Your task to perform on an android device: open app "VLC for Android" (install if not already installed) and enter user name: "Yves@outlook.com" and password: "internally" Image 0: 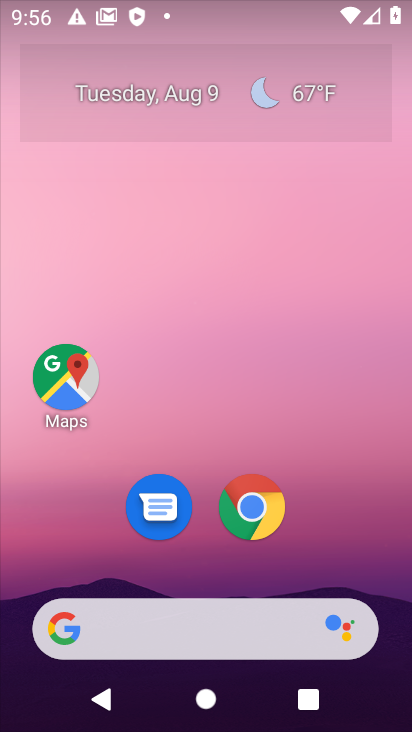
Step 0: drag from (89, 577) to (76, 134)
Your task to perform on an android device: open app "VLC for Android" (install if not already installed) and enter user name: "Yves@outlook.com" and password: "internally" Image 1: 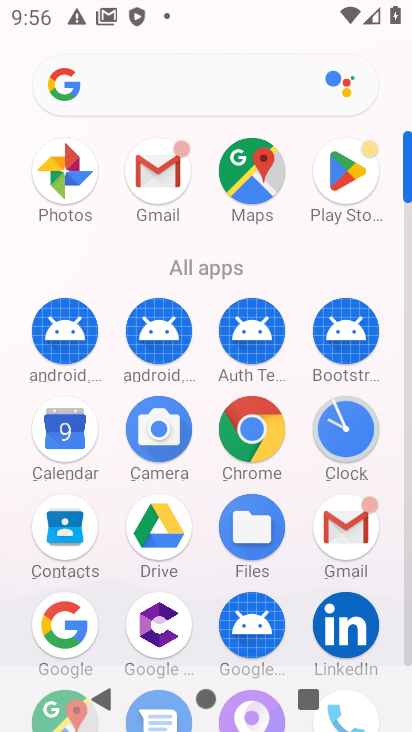
Step 1: click (350, 184)
Your task to perform on an android device: open app "VLC for Android" (install if not already installed) and enter user name: "Yves@outlook.com" and password: "internally" Image 2: 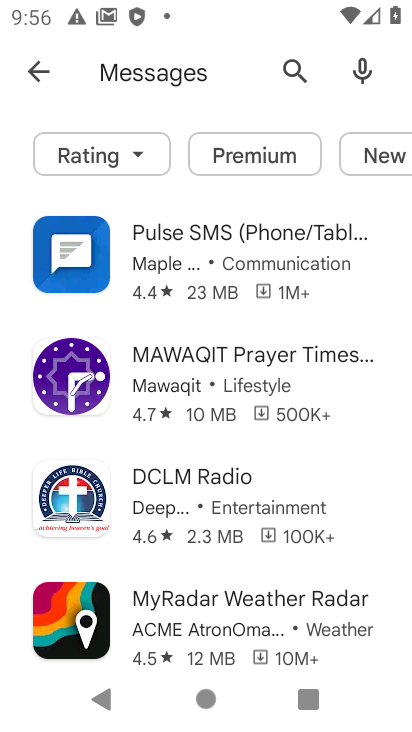
Step 2: click (24, 72)
Your task to perform on an android device: open app "VLC for Android" (install if not already installed) and enter user name: "Yves@outlook.com" and password: "internally" Image 3: 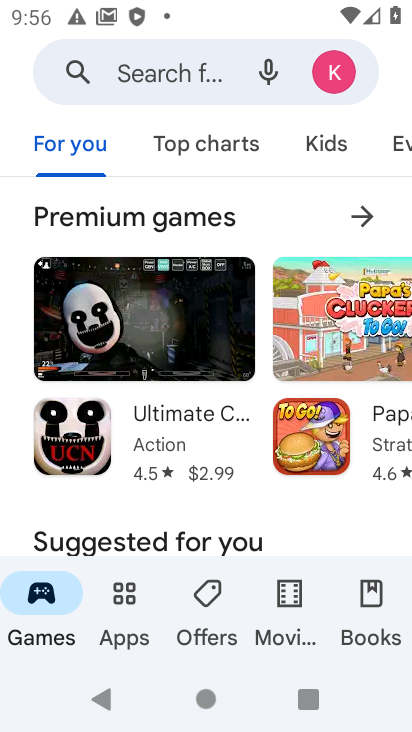
Step 3: click (31, 50)
Your task to perform on an android device: open app "VLC for Android" (install if not already installed) and enter user name: "Yves@outlook.com" and password: "internally" Image 4: 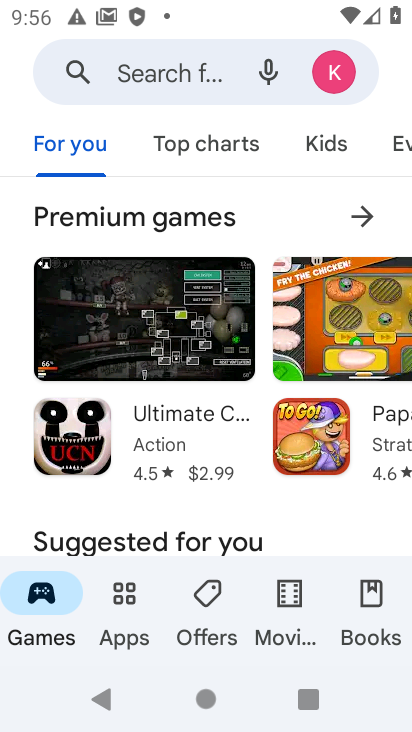
Step 4: click (128, 78)
Your task to perform on an android device: open app "VLC for Android" (install if not already installed) and enter user name: "Yves@outlook.com" and password: "internally" Image 5: 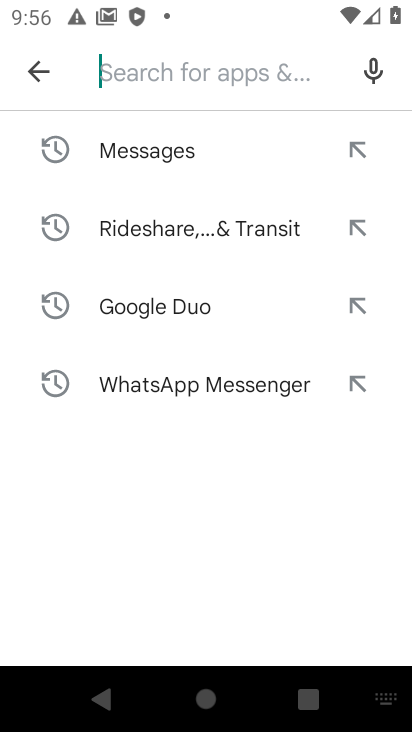
Step 5: type "VLC for Android"
Your task to perform on an android device: open app "VLC for Android" (install if not already installed) and enter user name: "Yves@outlook.com" and password: "internally" Image 6: 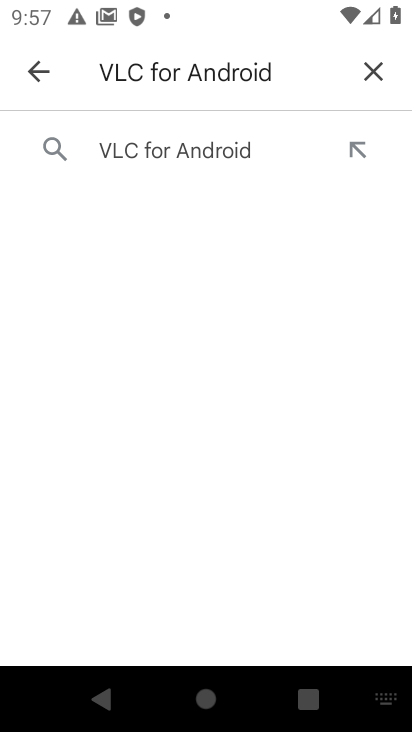
Step 6: click (142, 149)
Your task to perform on an android device: open app "VLC for Android" (install if not already installed) and enter user name: "Yves@outlook.com" and password: "internally" Image 7: 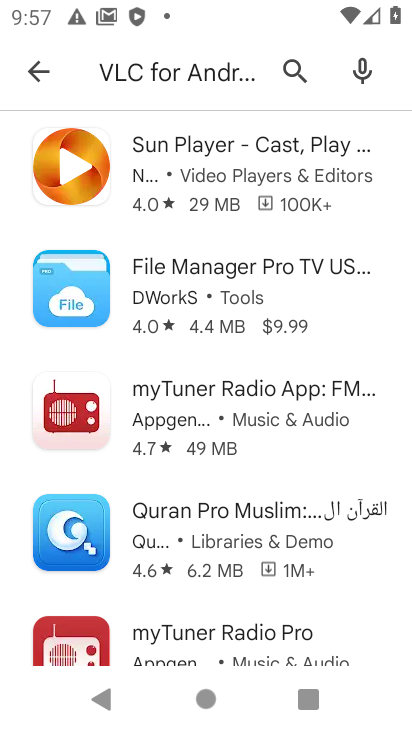
Step 7: task complete